Your task to perform on an android device: toggle improve location accuracy Image 0: 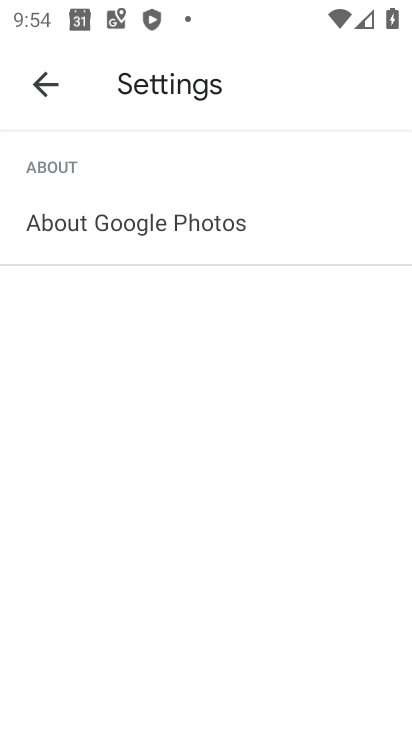
Step 0: press home button
Your task to perform on an android device: toggle improve location accuracy Image 1: 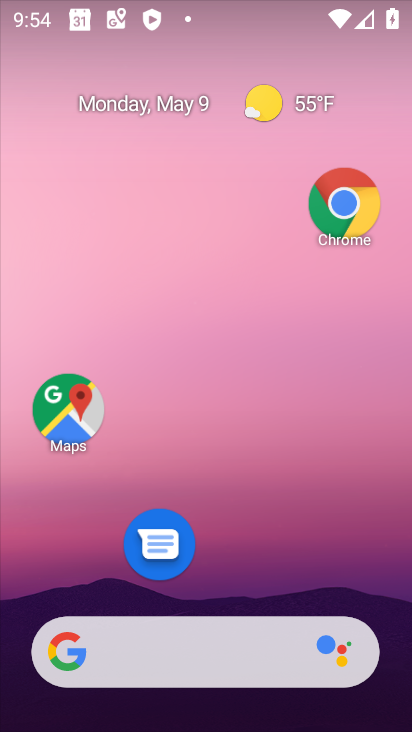
Step 1: drag from (242, 581) to (202, 97)
Your task to perform on an android device: toggle improve location accuracy Image 2: 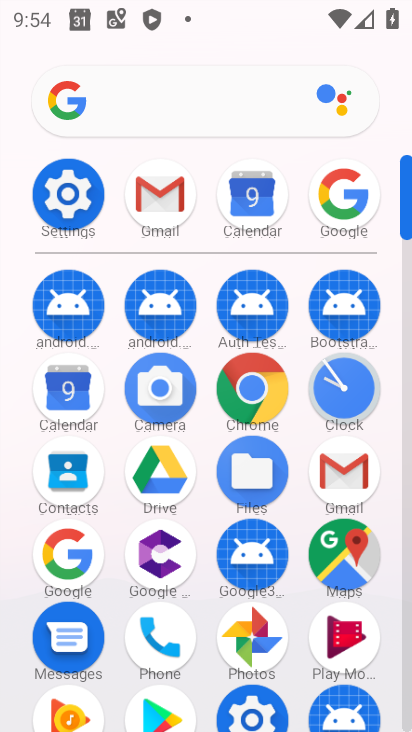
Step 2: drag from (193, 680) to (199, 372)
Your task to perform on an android device: toggle improve location accuracy Image 3: 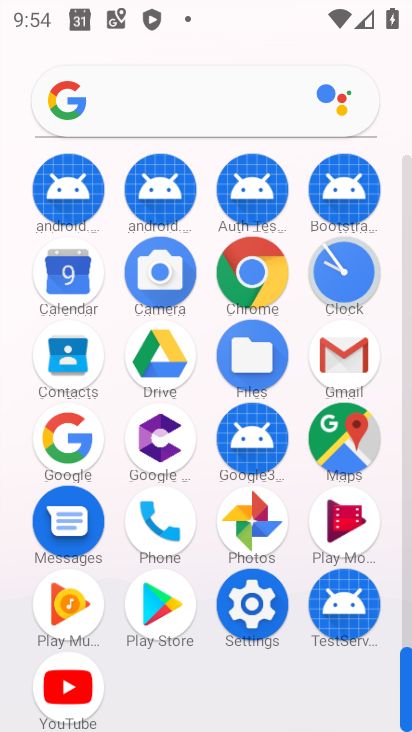
Step 3: click (239, 578)
Your task to perform on an android device: toggle improve location accuracy Image 4: 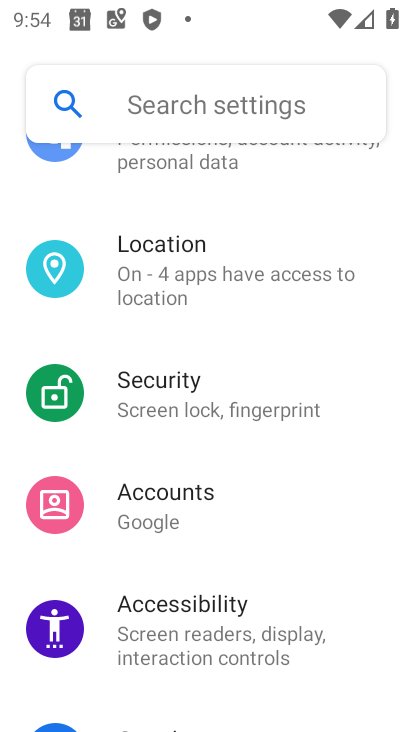
Step 4: drag from (240, 603) to (231, 307)
Your task to perform on an android device: toggle improve location accuracy Image 5: 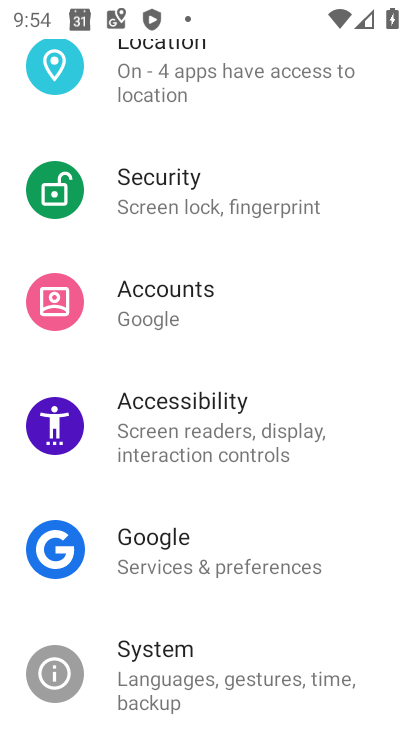
Step 5: click (202, 72)
Your task to perform on an android device: toggle improve location accuracy Image 6: 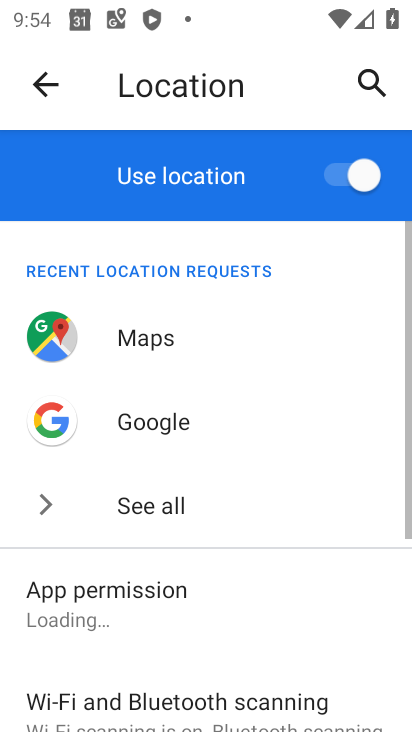
Step 6: drag from (275, 563) to (275, 304)
Your task to perform on an android device: toggle improve location accuracy Image 7: 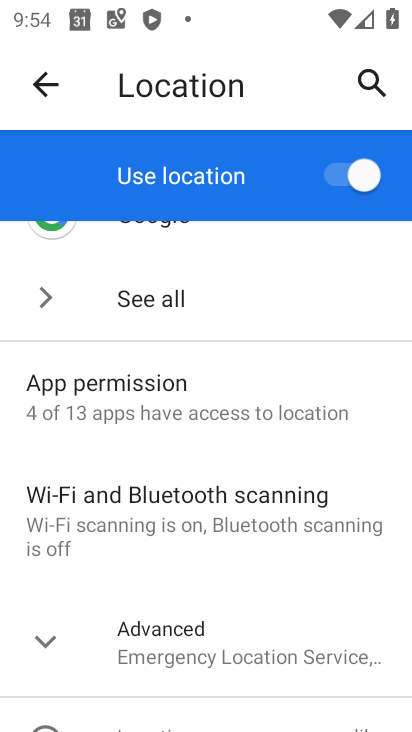
Step 7: click (257, 631)
Your task to perform on an android device: toggle improve location accuracy Image 8: 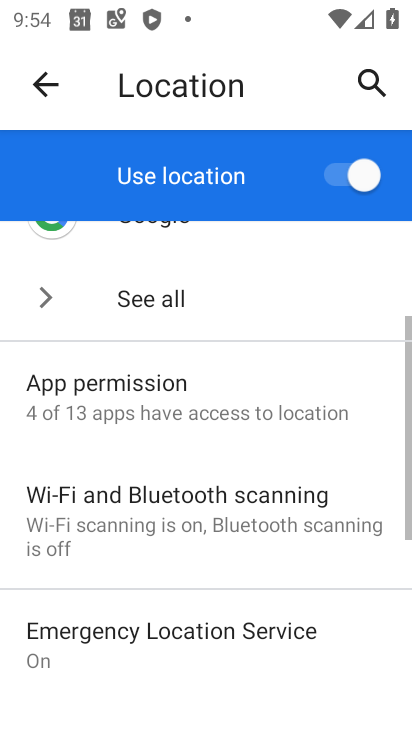
Step 8: drag from (274, 504) to (283, 335)
Your task to perform on an android device: toggle improve location accuracy Image 9: 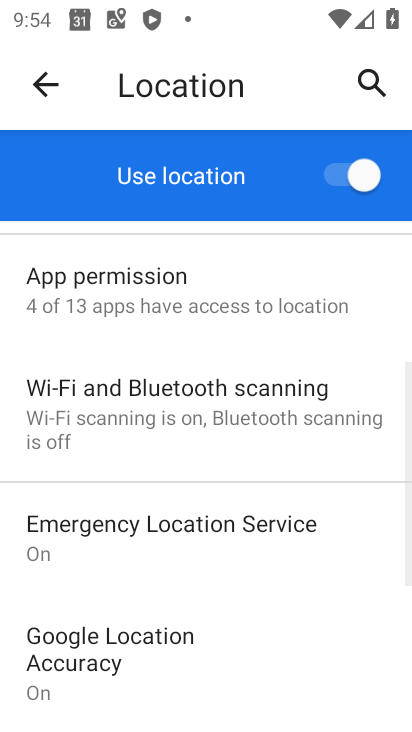
Step 9: click (188, 645)
Your task to perform on an android device: toggle improve location accuracy Image 10: 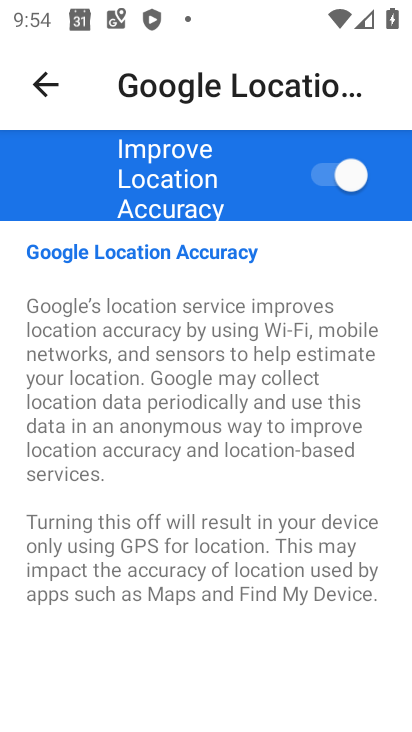
Step 10: click (328, 183)
Your task to perform on an android device: toggle improve location accuracy Image 11: 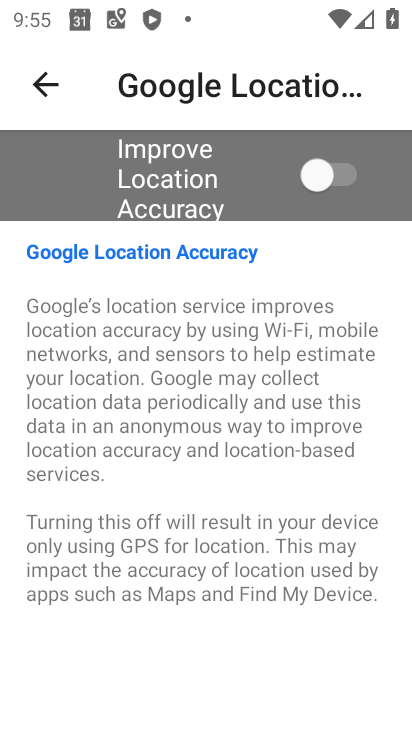
Step 11: task complete